Your task to perform on an android device: turn smart compose on in the gmail app Image 0: 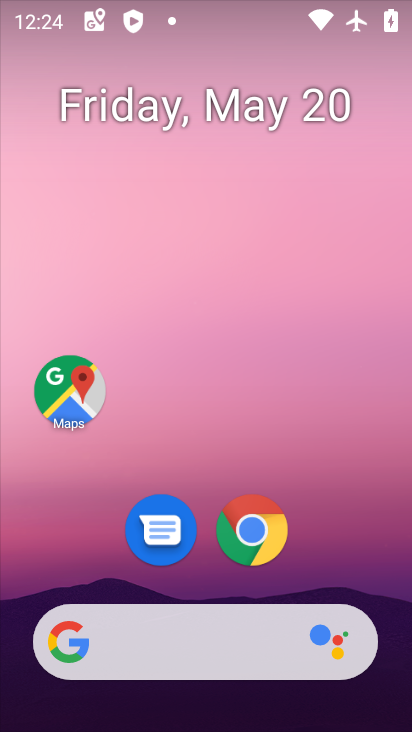
Step 0: drag from (280, 677) to (267, 132)
Your task to perform on an android device: turn smart compose on in the gmail app Image 1: 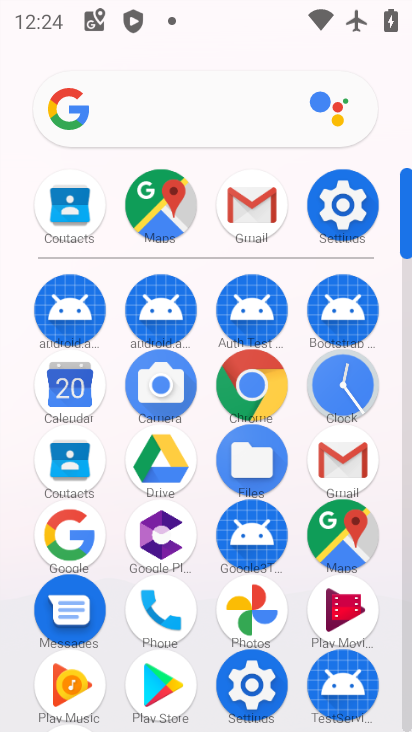
Step 1: click (263, 213)
Your task to perform on an android device: turn smart compose on in the gmail app Image 2: 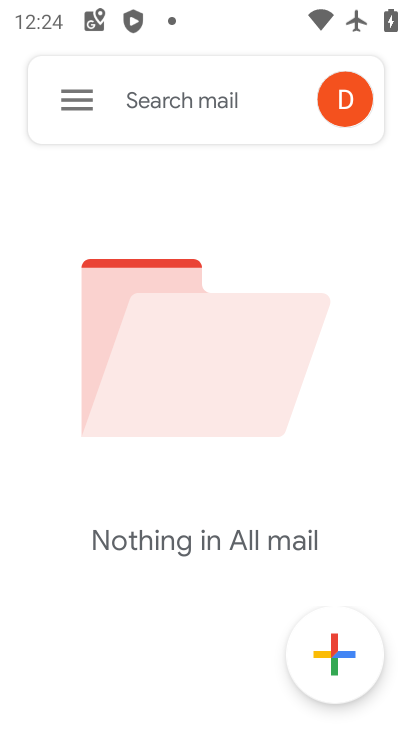
Step 2: click (68, 101)
Your task to perform on an android device: turn smart compose on in the gmail app Image 3: 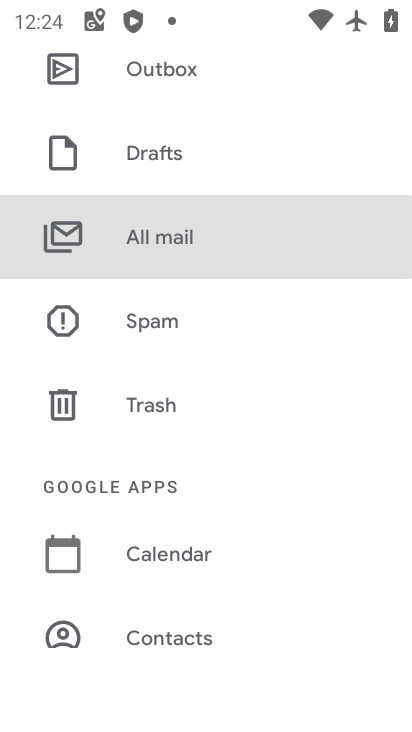
Step 3: drag from (182, 640) to (321, 62)
Your task to perform on an android device: turn smart compose on in the gmail app Image 4: 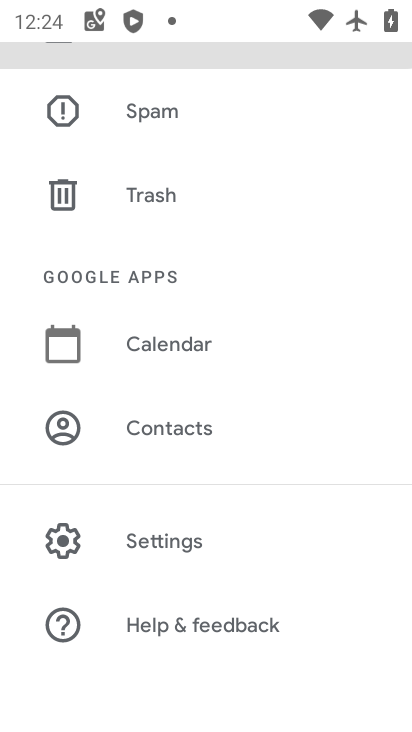
Step 4: click (225, 539)
Your task to perform on an android device: turn smart compose on in the gmail app Image 5: 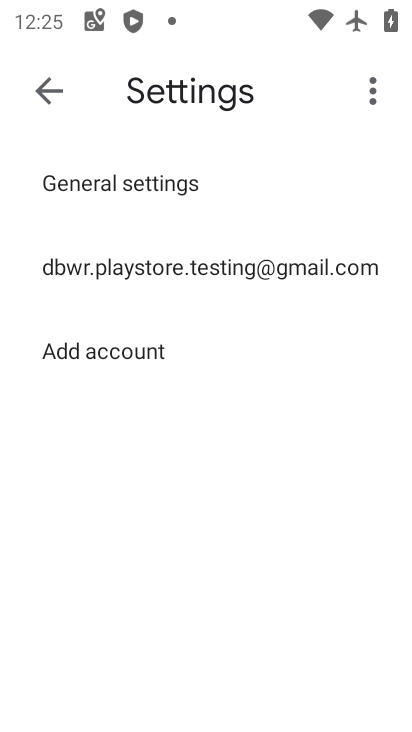
Step 5: click (163, 262)
Your task to perform on an android device: turn smart compose on in the gmail app Image 6: 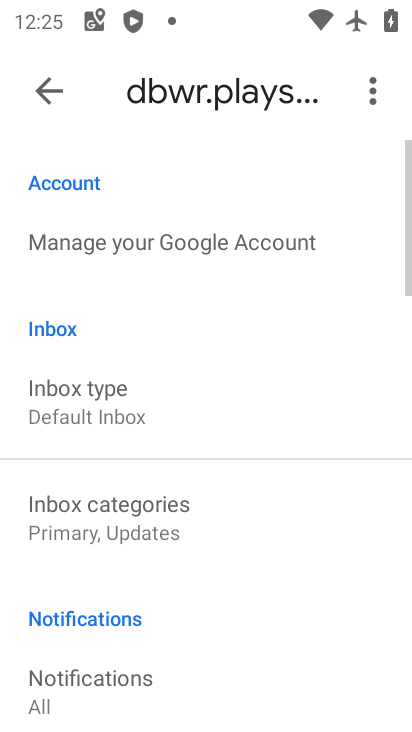
Step 6: task complete